Your task to perform on an android device: turn off airplane mode Image 0: 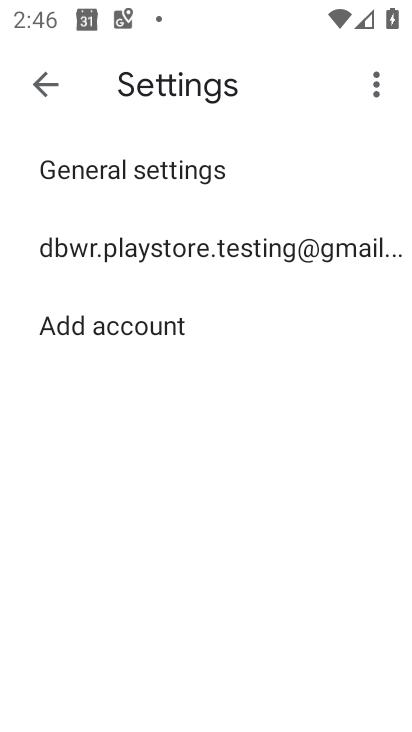
Step 0: press home button
Your task to perform on an android device: turn off airplane mode Image 1: 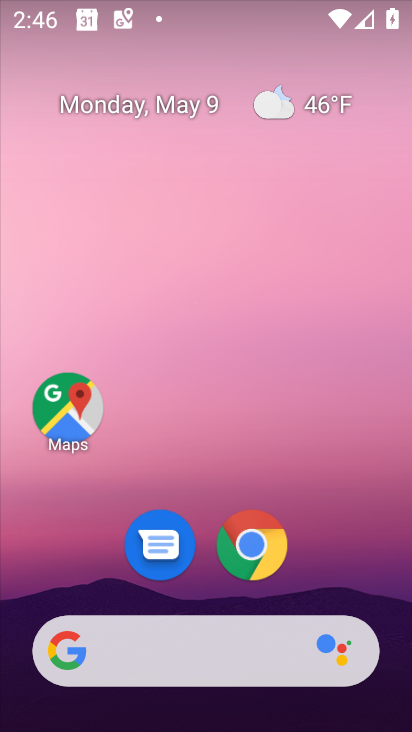
Step 1: drag from (201, 602) to (224, 228)
Your task to perform on an android device: turn off airplane mode Image 2: 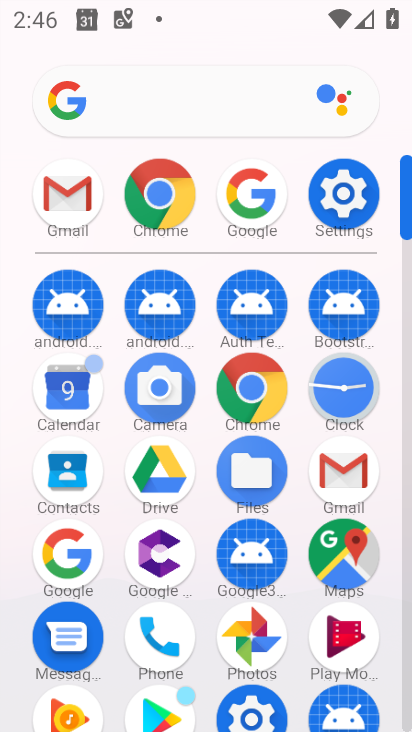
Step 2: click (326, 209)
Your task to perform on an android device: turn off airplane mode Image 3: 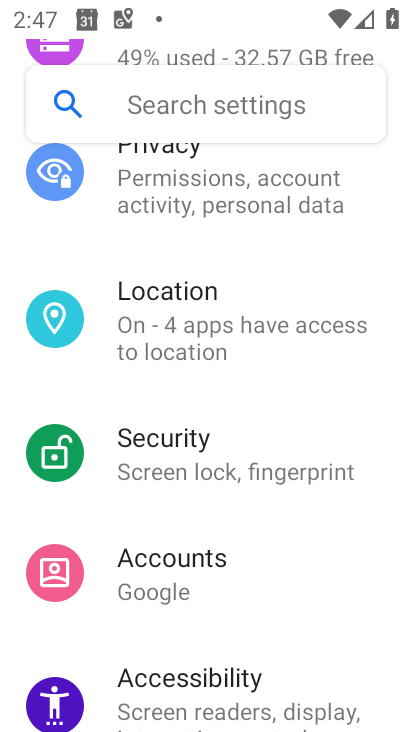
Step 3: drag from (246, 216) to (256, 655)
Your task to perform on an android device: turn off airplane mode Image 4: 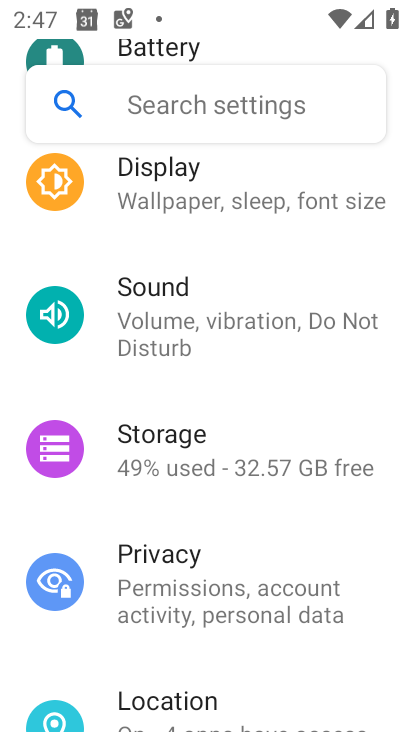
Step 4: drag from (214, 244) to (223, 559)
Your task to perform on an android device: turn off airplane mode Image 5: 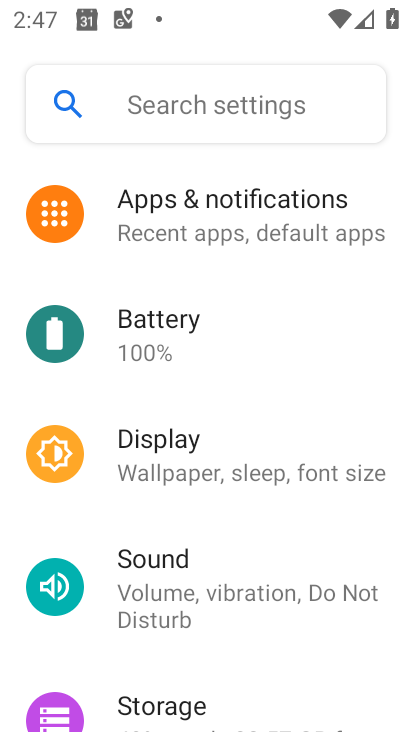
Step 5: drag from (227, 257) to (213, 589)
Your task to perform on an android device: turn off airplane mode Image 6: 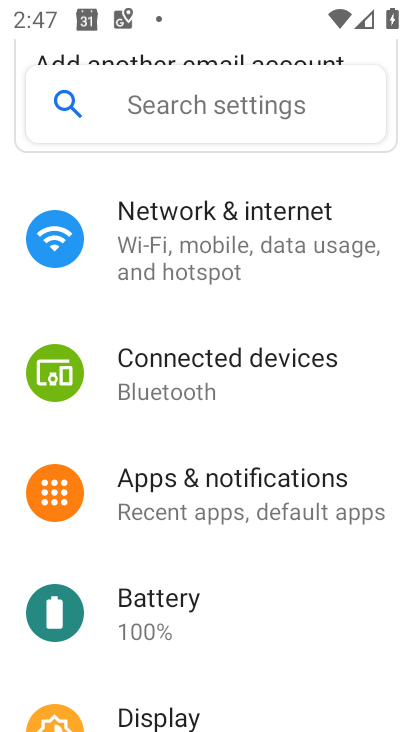
Step 6: click (231, 234)
Your task to perform on an android device: turn off airplane mode Image 7: 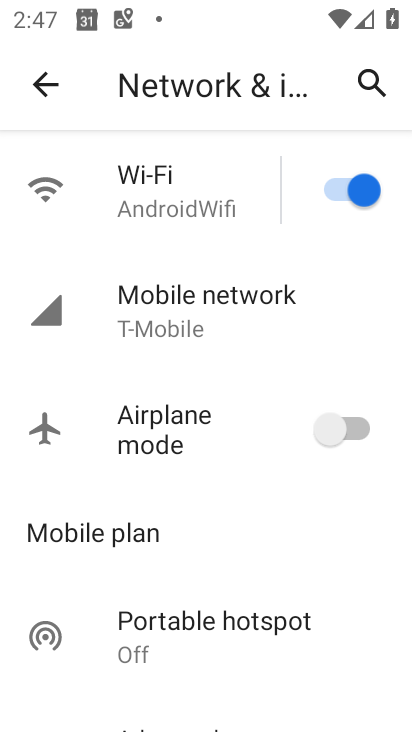
Step 7: task complete